Your task to perform on an android device: remove spam from my inbox in the gmail app Image 0: 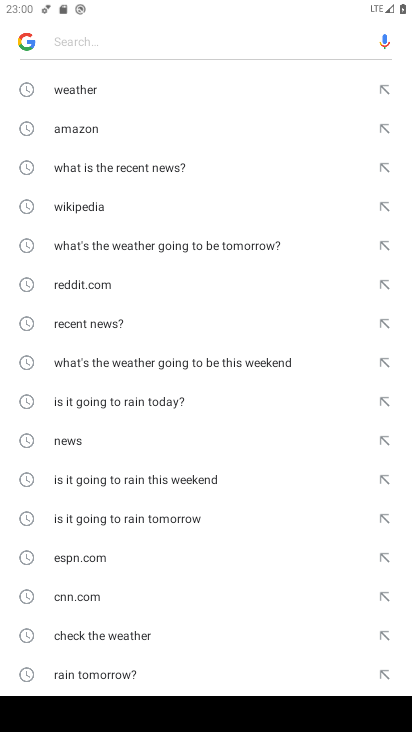
Step 0: press home button
Your task to perform on an android device: remove spam from my inbox in the gmail app Image 1: 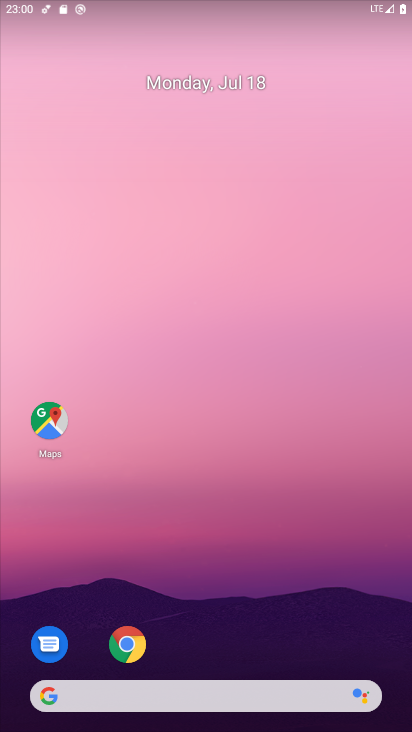
Step 1: drag from (346, 598) to (372, 140)
Your task to perform on an android device: remove spam from my inbox in the gmail app Image 2: 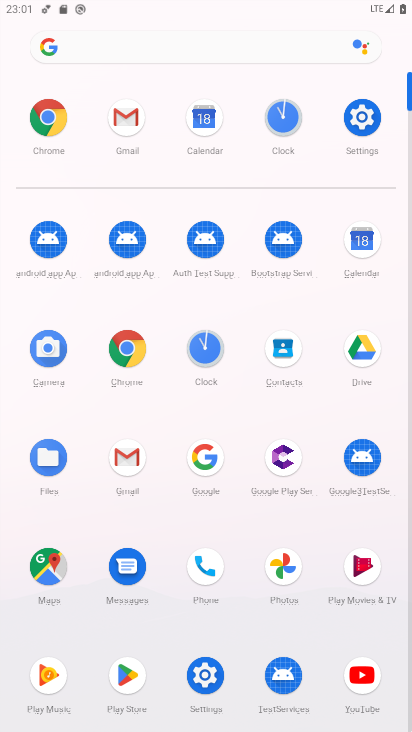
Step 2: click (125, 460)
Your task to perform on an android device: remove spam from my inbox in the gmail app Image 3: 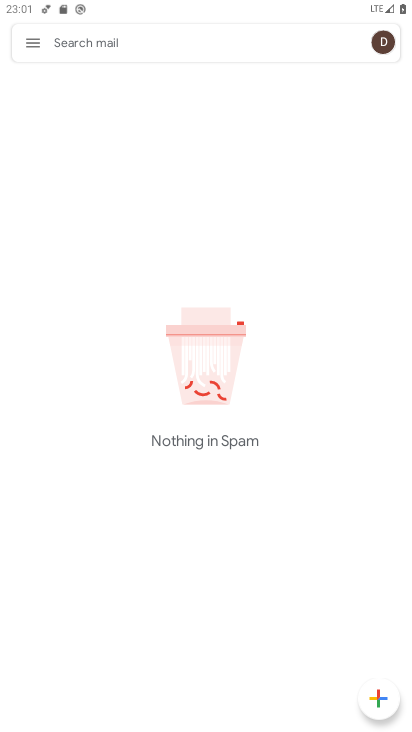
Step 3: click (34, 47)
Your task to perform on an android device: remove spam from my inbox in the gmail app Image 4: 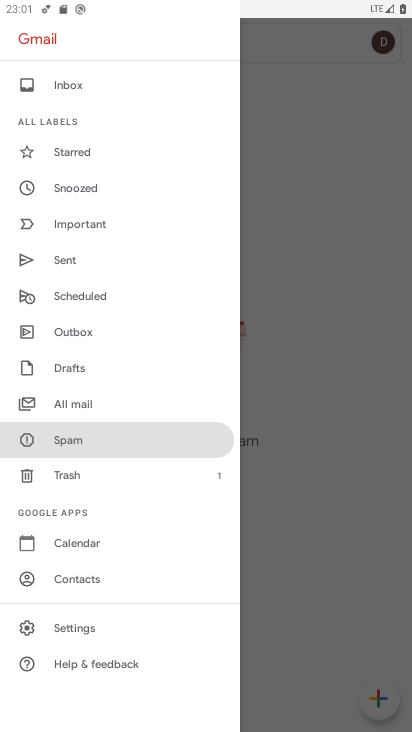
Step 4: click (153, 446)
Your task to perform on an android device: remove spam from my inbox in the gmail app Image 5: 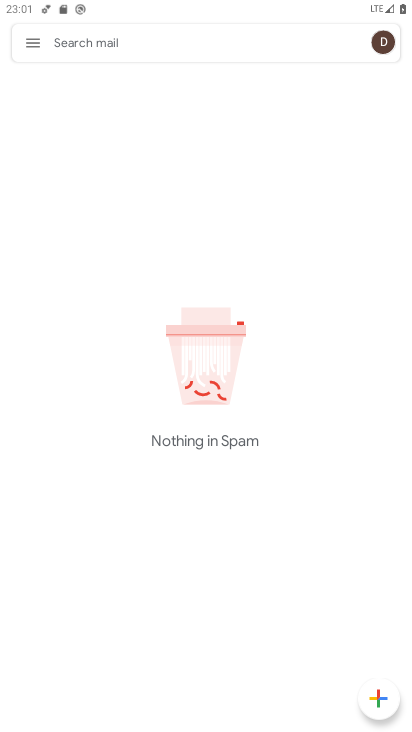
Step 5: task complete